Your task to perform on an android device: Open calendar and show me the second week of next month Image 0: 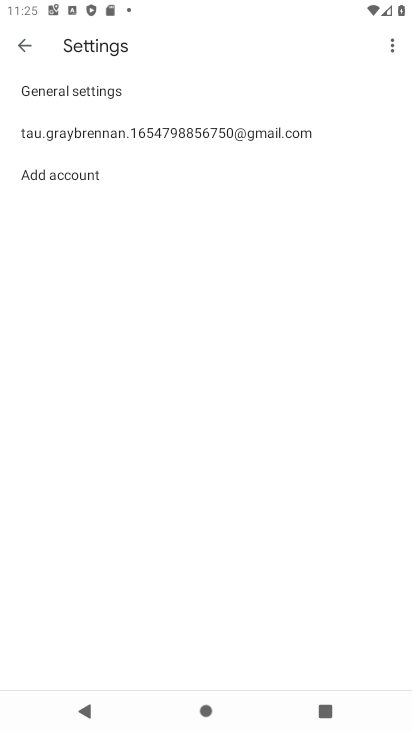
Step 0: press home button
Your task to perform on an android device: Open calendar and show me the second week of next month Image 1: 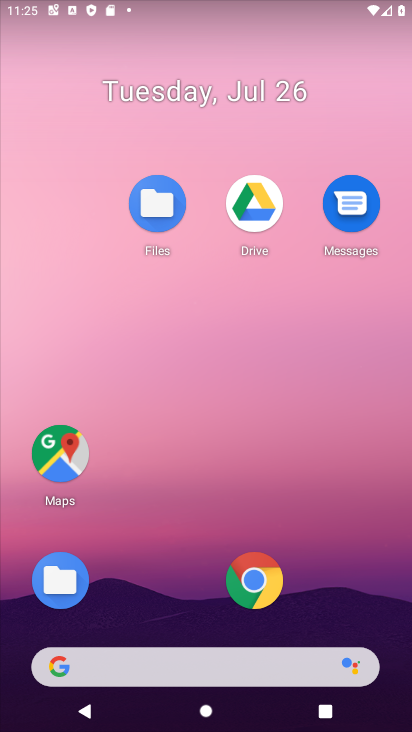
Step 1: click (257, 89)
Your task to perform on an android device: Open calendar and show me the second week of next month Image 2: 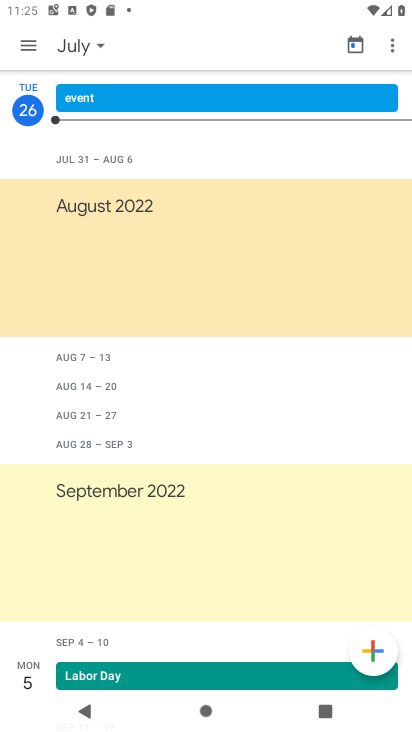
Step 2: click (91, 41)
Your task to perform on an android device: Open calendar and show me the second week of next month Image 3: 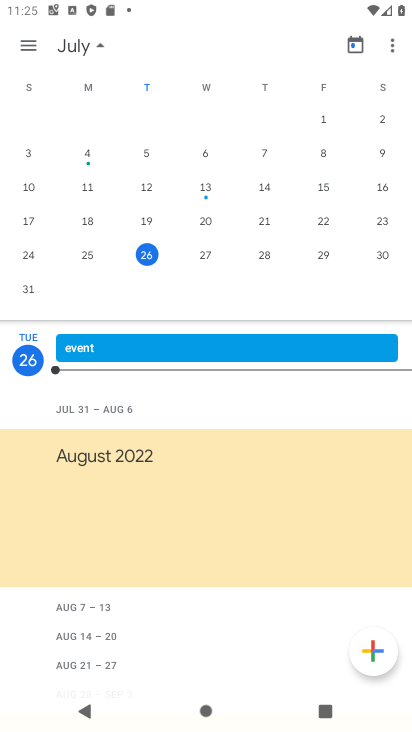
Step 3: drag from (340, 301) to (21, 207)
Your task to perform on an android device: Open calendar and show me the second week of next month Image 4: 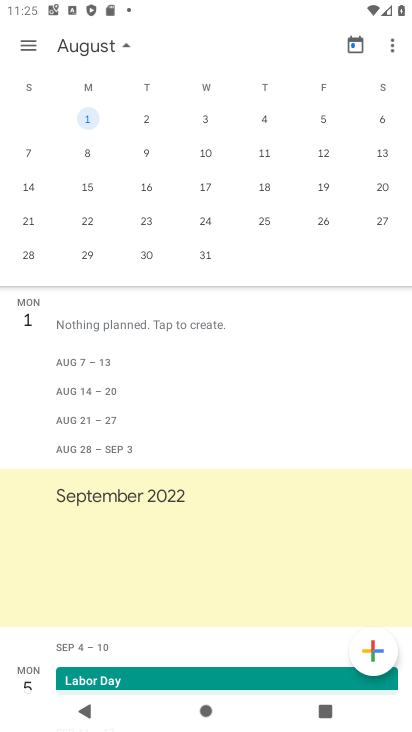
Step 4: click (198, 155)
Your task to perform on an android device: Open calendar and show me the second week of next month Image 5: 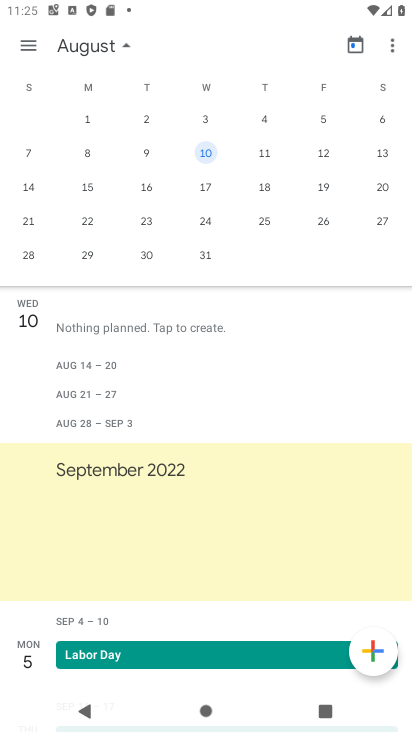
Step 5: task complete